Your task to perform on an android device: turn pop-ups off in chrome Image 0: 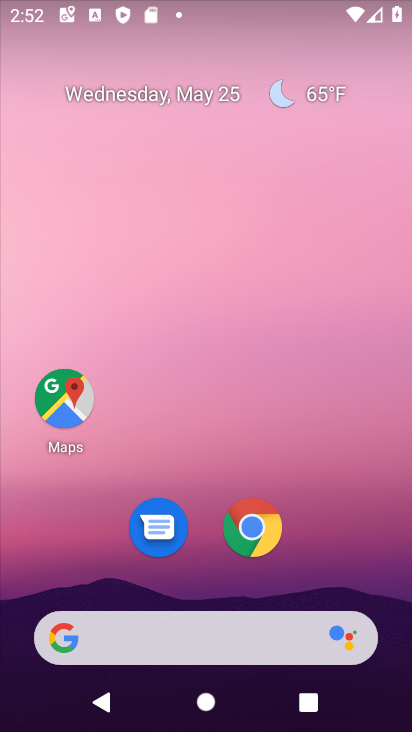
Step 0: drag from (303, 564) to (329, 8)
Your task to perform on an android device: turn pop-ups off in chrome Image 1: 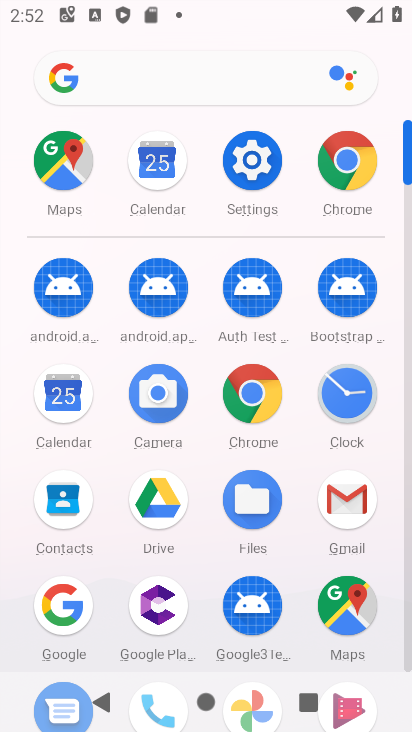
Step 1: click (274, 401)
Your task to perform on an android device: turn pop-ups off in chrome Image 2: 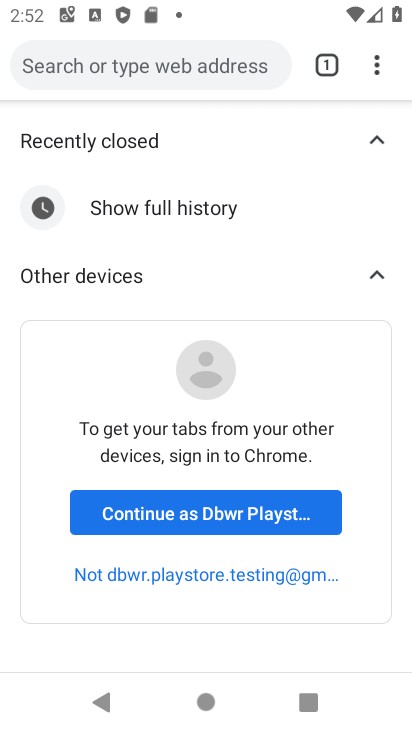
Step 2: drag from (383, 61) to (193, 570)
Your task to perform on an android device: turn pop-ups off in chrome Image 3: 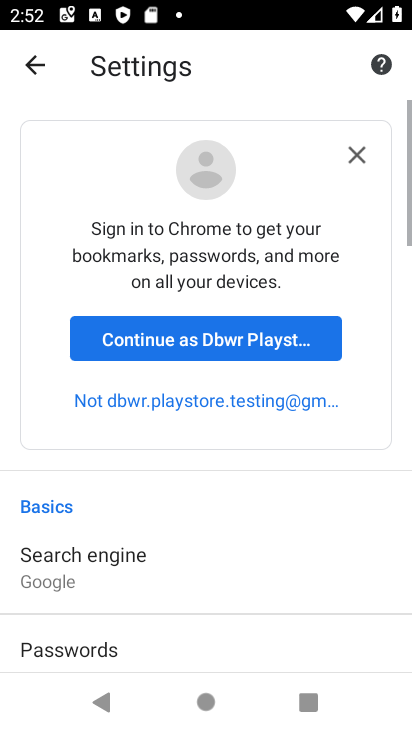
Step 3: drag from (244, 559) to (249, 43)
Your task to perform on an android device: turn pop-ups off in chrome Image 4: 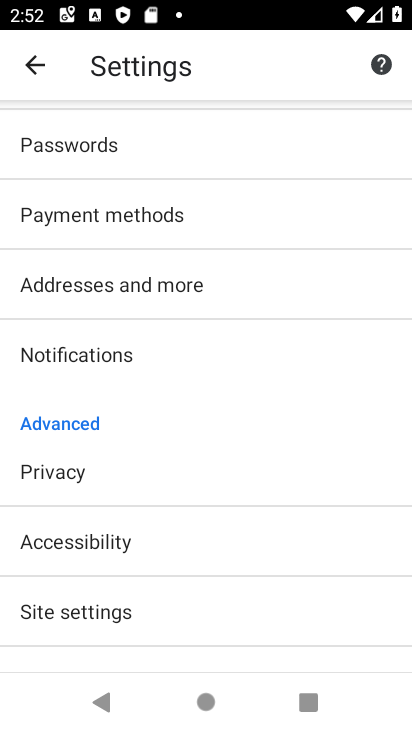
Step 4: drag from (203, 529) to (260, 239)
Your task to perform on an android device: turn pop-ups off in chrome Image 5: 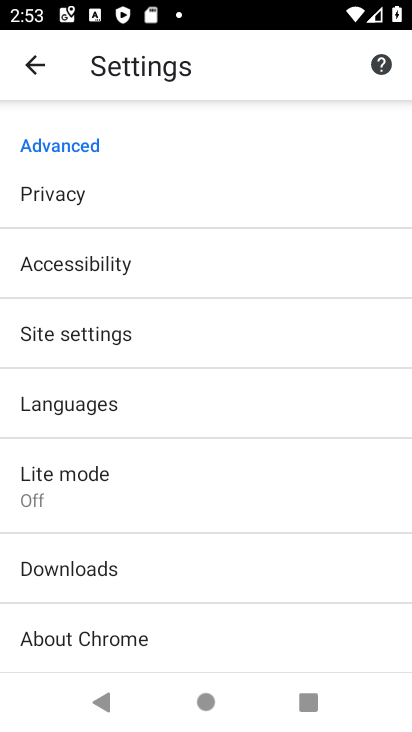
Step 5: click (142, 346)
Your task to perform on an android device: turn pop-ups off in chrome Image 6: 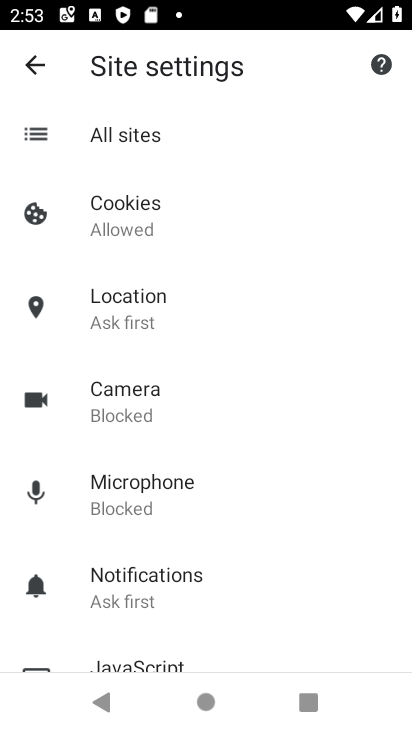
Step 6: drag from (273, 624) to (325, 54)
Your task to perform on an android device: turn pop-ups off in chrome Image 7: 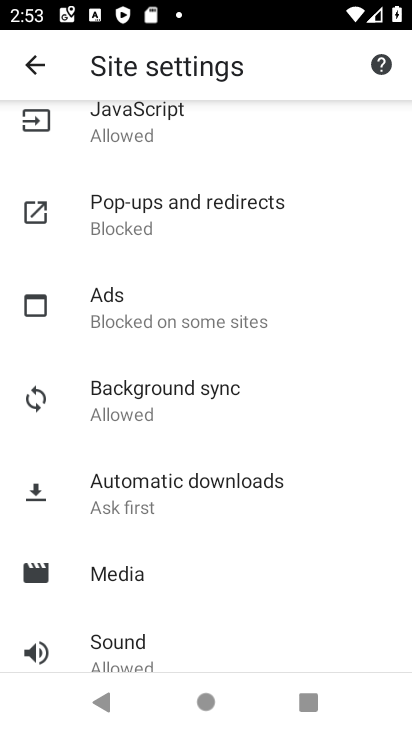
Step 7: click (231, 209)
Your task to perform on an android device: turn pop-ups off in chrome Image 8: 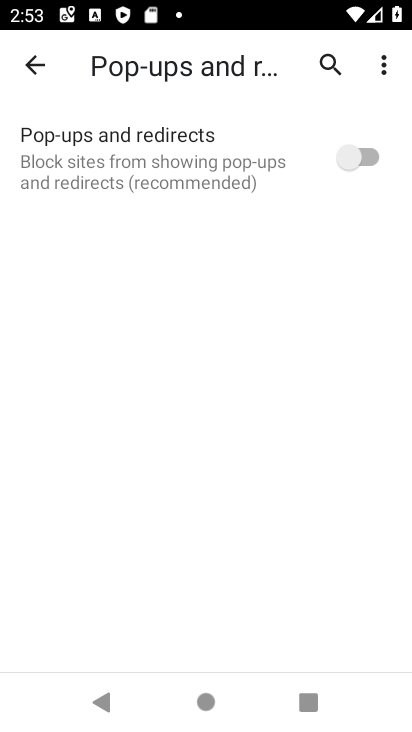
Step 8: task complete